Your task to perform on an android device: Open calendar and show me the second week of next month Image 0: 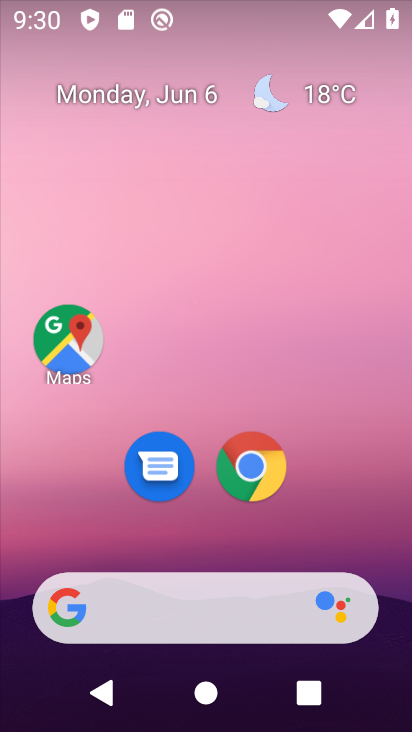
Step 0: press home button
Your task to perform on an android device: Open calendar and show me the second week of next month Image 1: 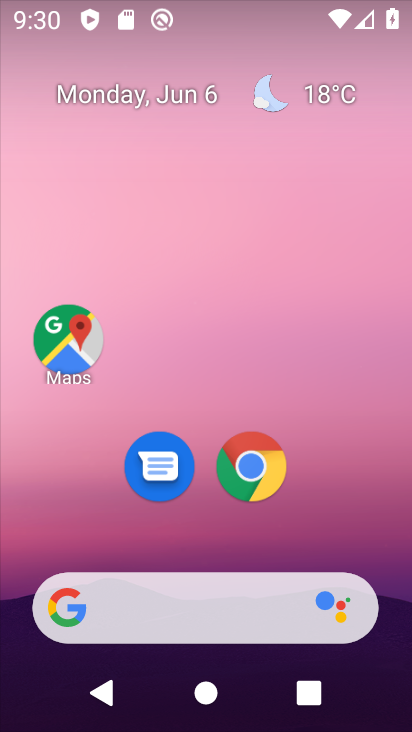
Step 1: drag from (307, 537) to (299, 12)
Your task to perform on an android device: Open calendar and show me the second week of next month Image 2: 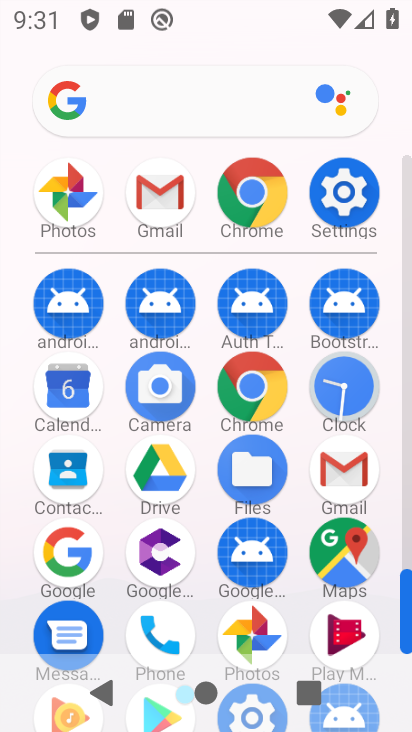
Step 2: click (73, 400)
Your task to perform on an android device: Open calendar and show me the second week of next month Image 3: 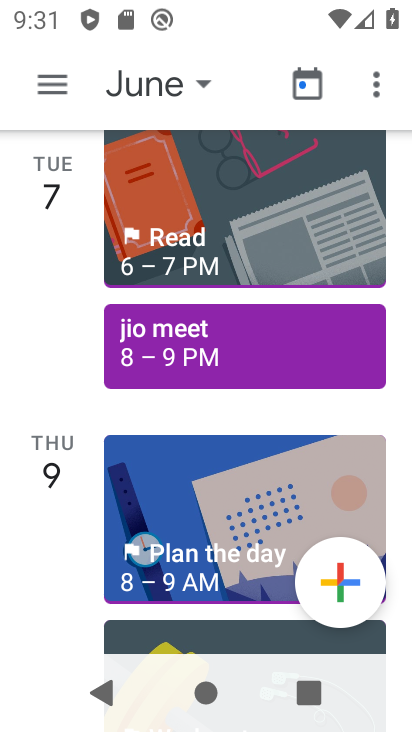
Step 3: click (58, 90)
Your task to perform on an android device: Open calendar and show me the second week of next month Image 4: 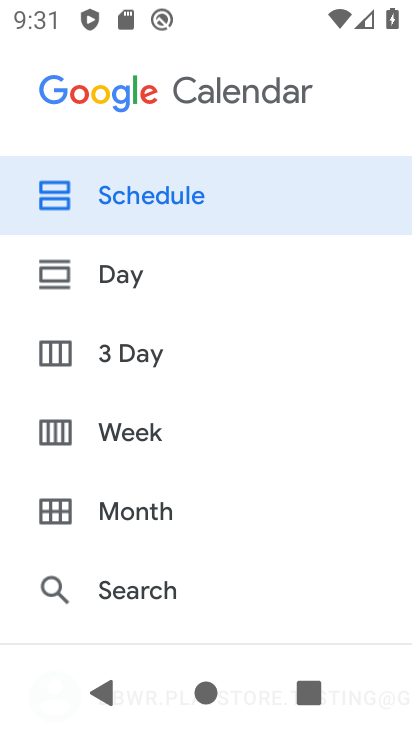
Step 4: click (162, 433)
Your task to perform on an android device: Open calendar and show me the second week of next month Image 5: 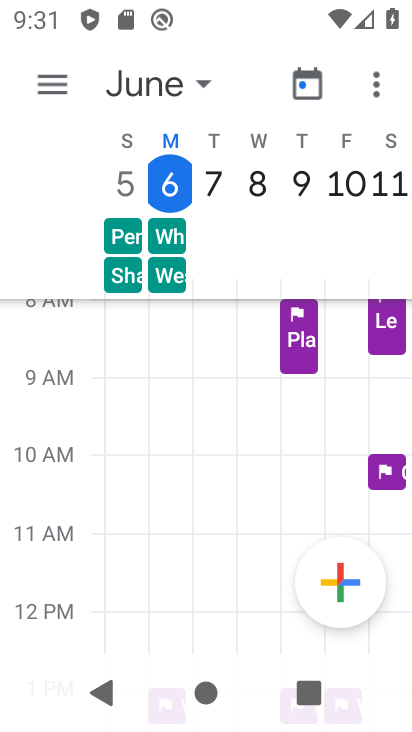
Step 5: click (132, 85)
Your task to perform on an android device: Open calendar and show me the second week of next month Image 6: 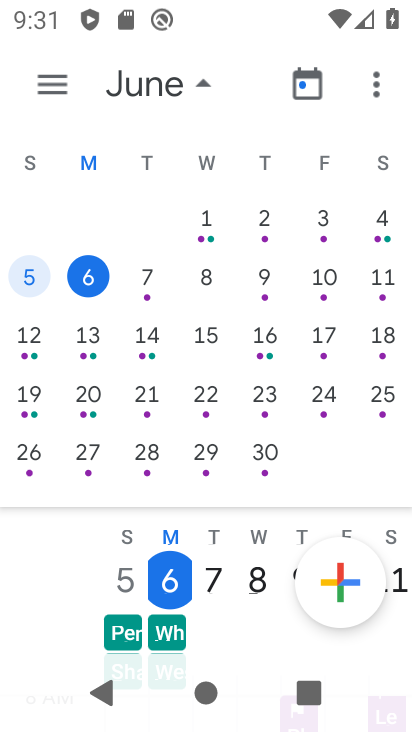
Step 6: drag from (340, 321) to (41, 315)
Your task to perform on an android device: Open calendar and show me the second week of next month Image 7: 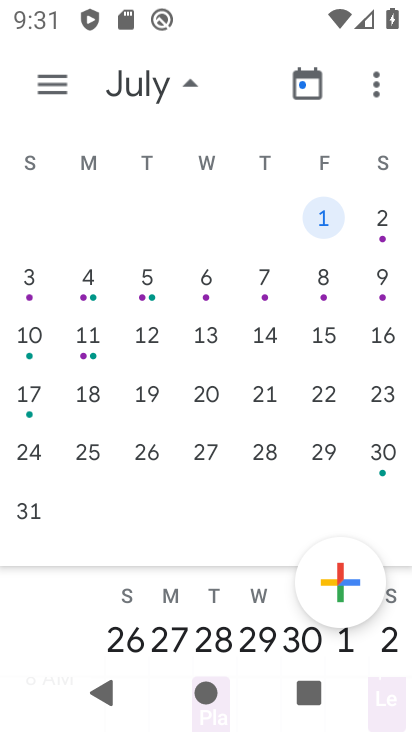
Step 7: click (40, 345)
Your task to perform on an android device: Open calendar and show me the second week of next month Image 8: 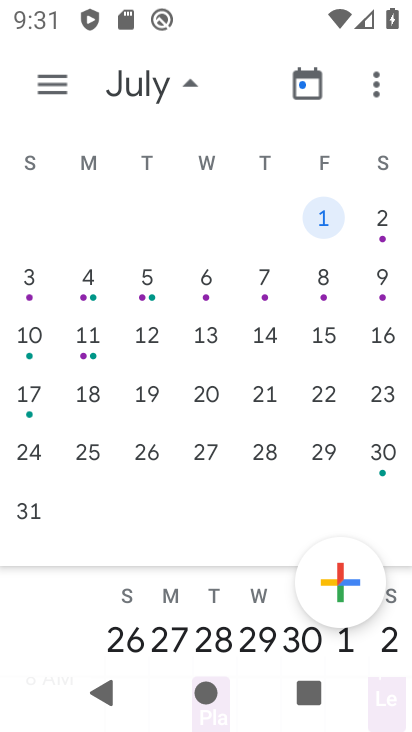
Step 8: click (40, 345)
Your task to perform on an android device: Open calendar and show me the second week of next month Image 9: 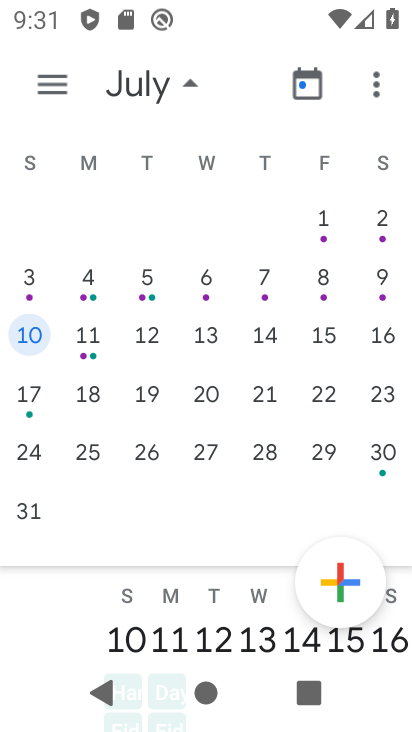
Step 9: task complete